Your task to perform on an android device: Go to Google Image 0: 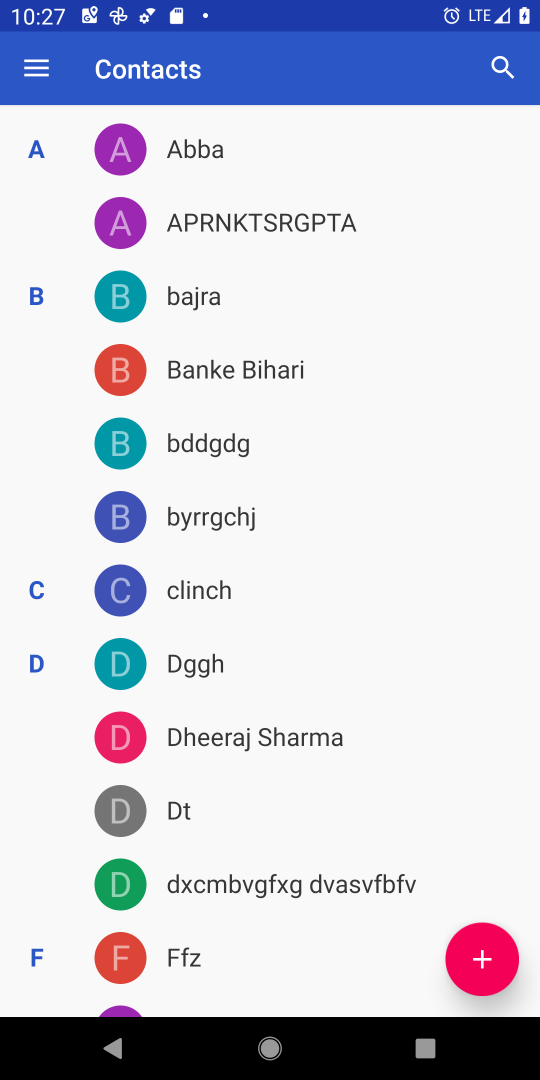
Step 0: press home button
Your task to perform on an android device: Go to Google Image 1: 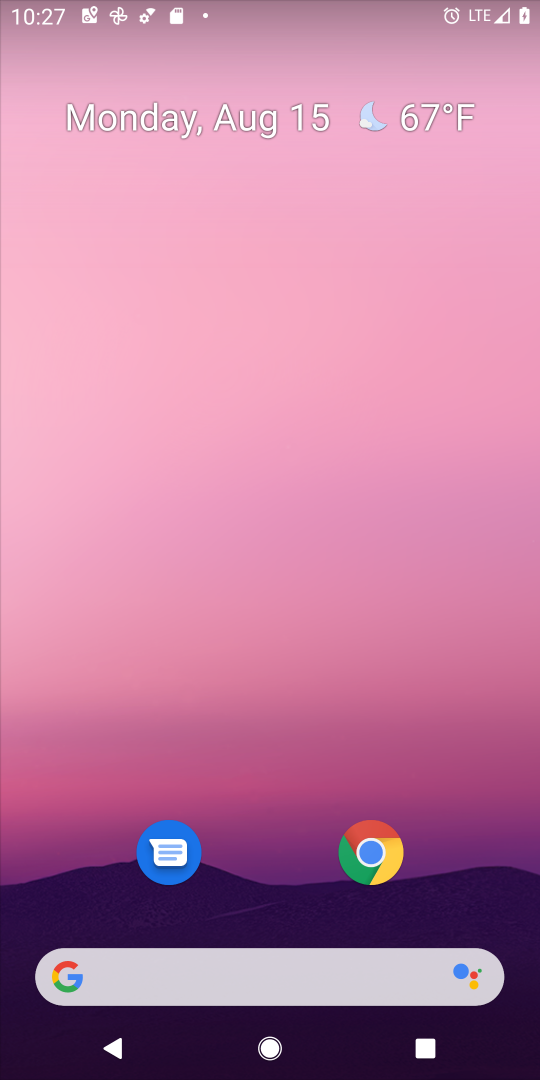
Step 1: drag from (255, 984) to (352, 42)
Your task to perform on an android device: Go to Google Image 2: 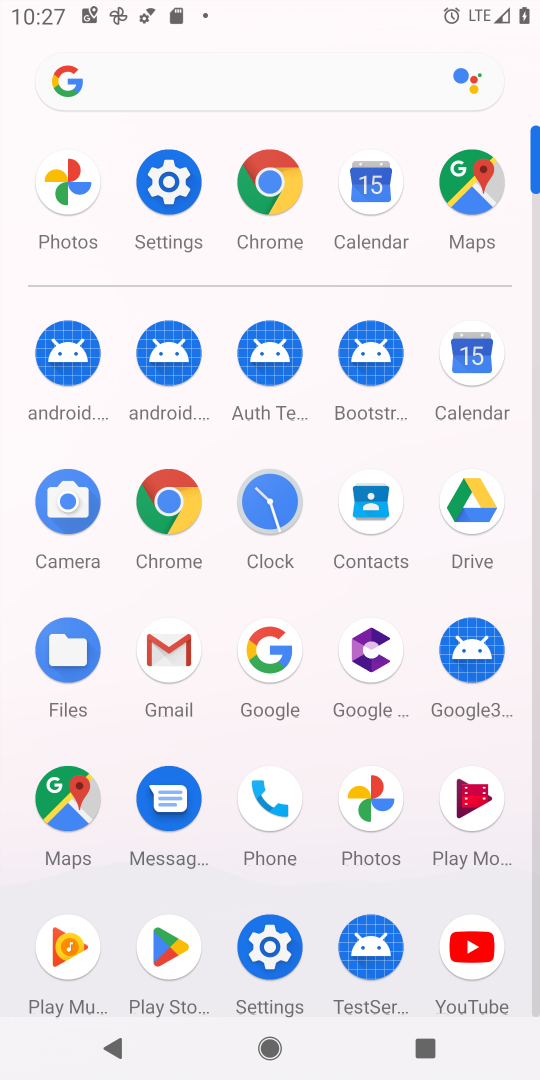
Step 2: click (262, 650)
Your task to perform on an android device: Go to Google Image 3: 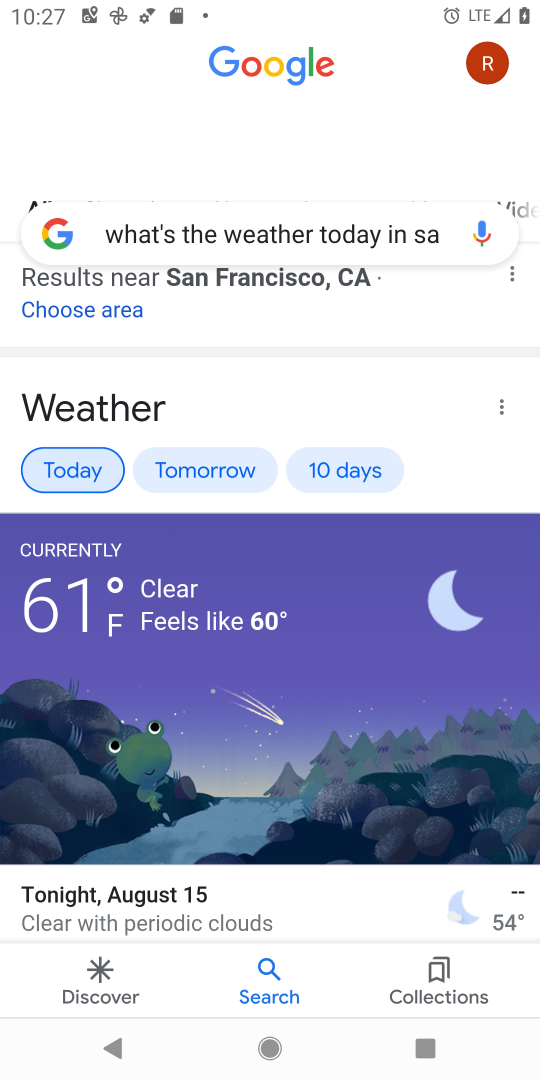
Step 3: task complete